Your task to perform on an android device: turn on javascript in the chrome app Image 0: 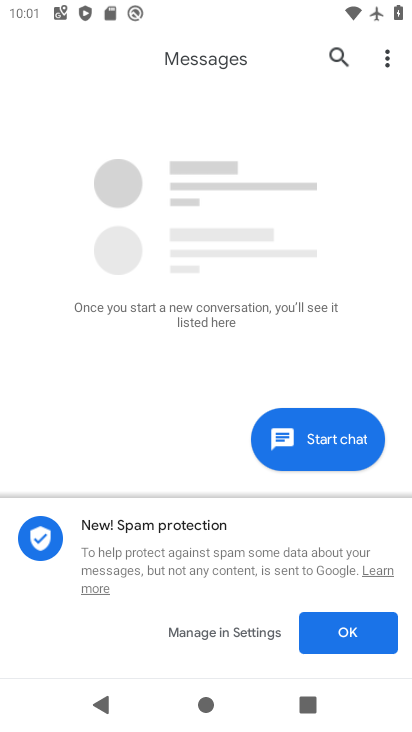
Step 0: press home button
Your task to perform on an android device: turn on javascript in the chrome app Image 1: 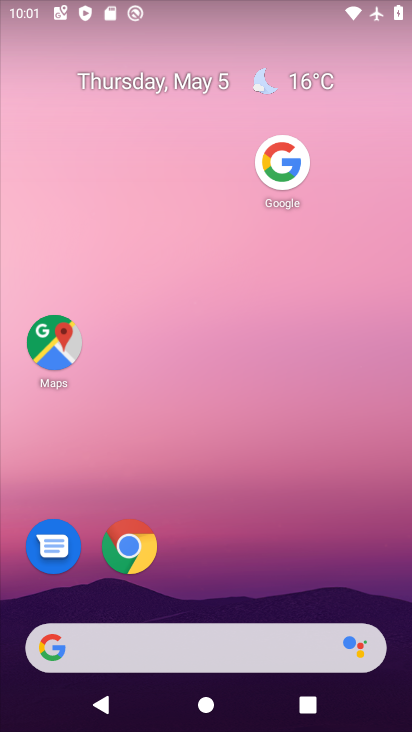
Step 1: drag from (178, 657) to (341, 183)
Your task to perform on an android device: turn on javascript in the chrome app Image 2: 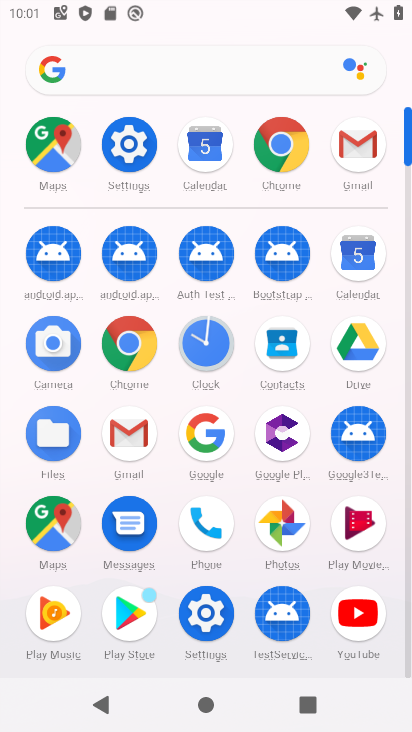
Step 2: click (281, 158)
Your task to perform on an android device: turn on javascript in the chrome app Image 3: 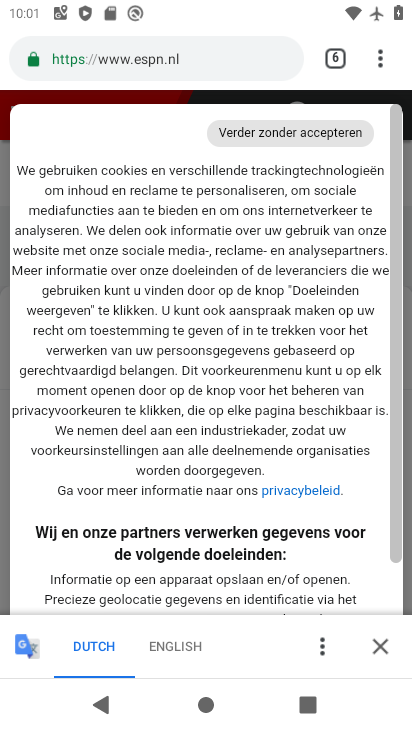
Step 3: drag from (378, 67) to (245, 573)
Your task to perform on an android device: turn on javascript in the chrome app Image 4: 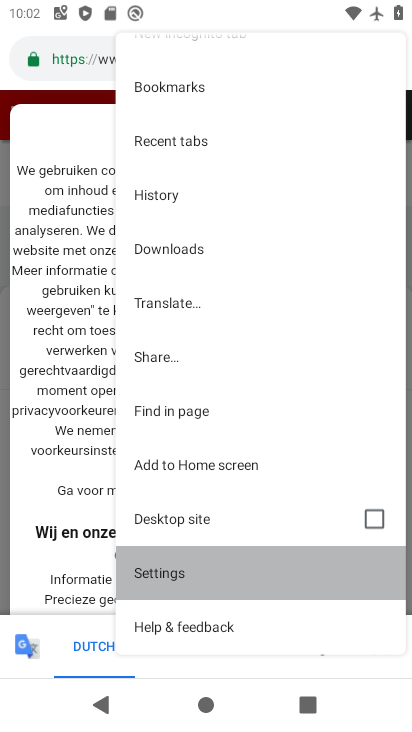
Step 4: click (245, 573)
Your task to perform on an android device: turn on javascript in the chrome app Image 5: 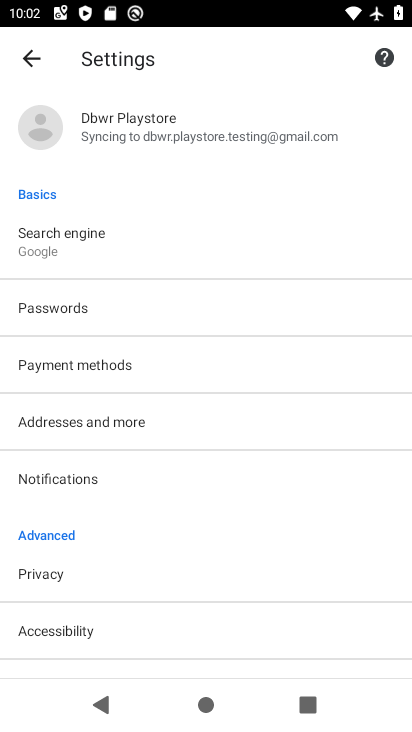
Step 5: drag from (139, 577) to (326, 171)
Your task to perform on an android device: turn on javascript in the chrome app Image 6: 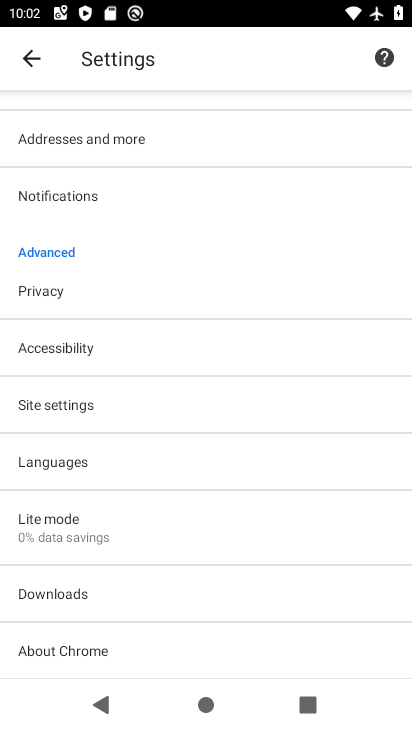
Step 6: click (126, 411)
Your task to perform on an android device: turn on javascript in the chrome app Image 7: 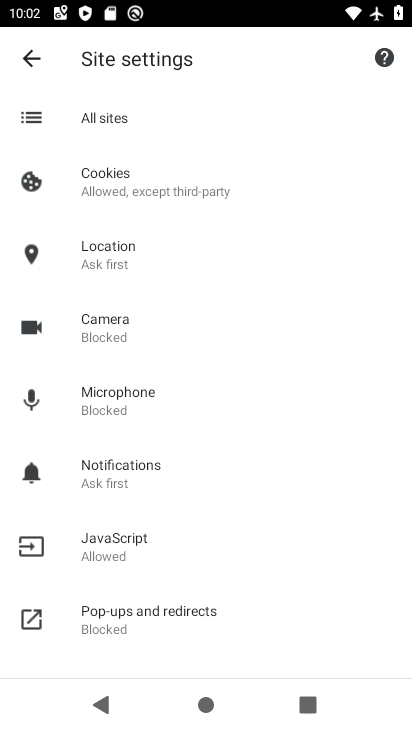
Step 7: click (133, 541)
Your task to perform on an android device: turn on javascript in the chrome app Image 8: 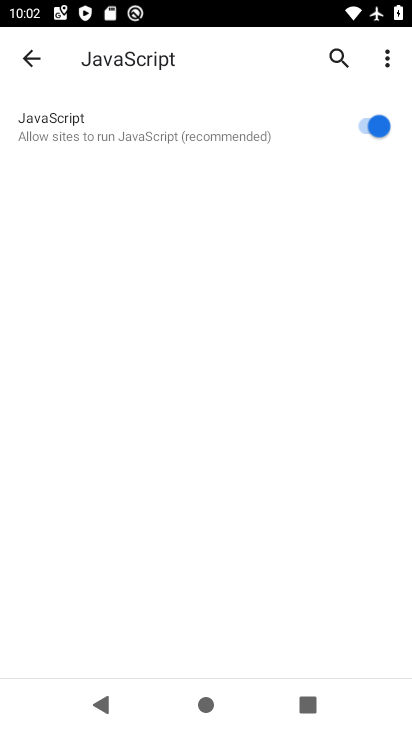
Step 8: task complete